Your task to perform on an android device: turn on data saver in the chrome app Image 0: 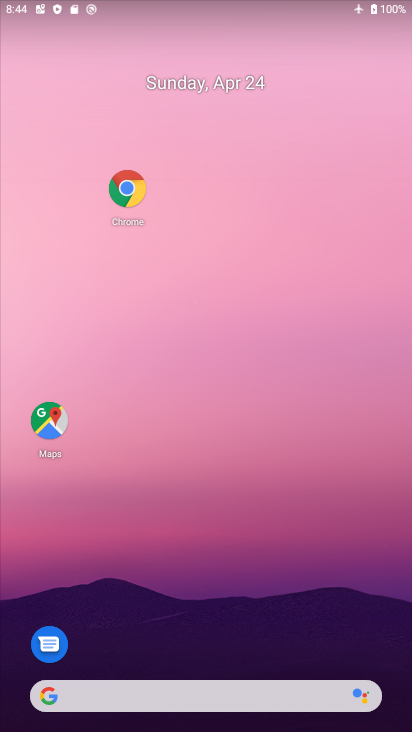
Step 0: drag from (222, 587) to (335, 235)
Your task to perform on an android device: turn on data saver in the chrome app Image 1: 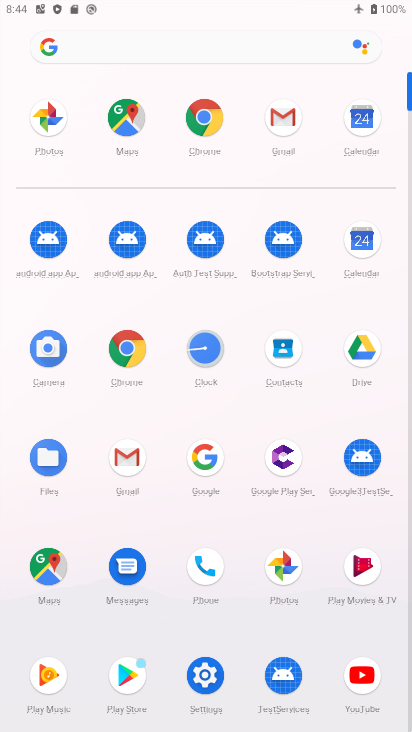
Step 1: click (125, 350)
Your task to perform on an android device: turn on data saver in the chrome app Image 2: 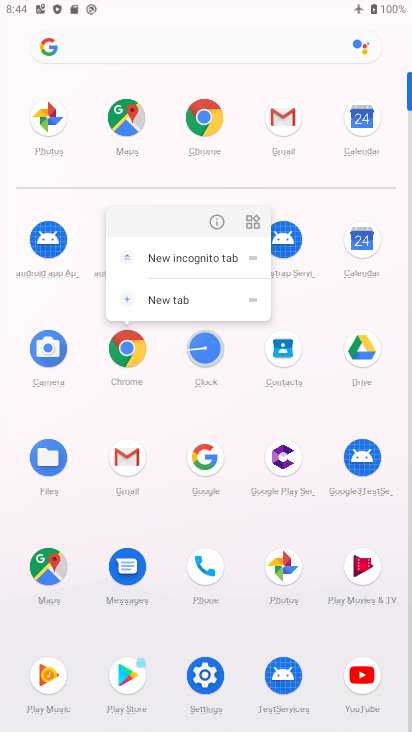
Step 2: click (214, 222)
Your task to perform on an android device: turn on data saver in the chrome app Image 3: 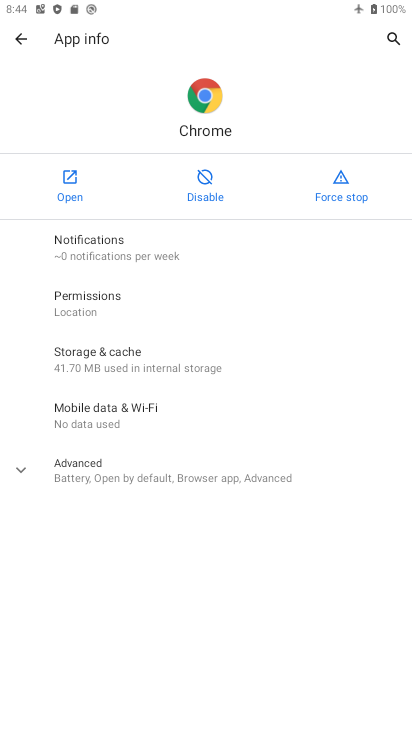
Step 3: click (80, 194)
Your task to perform on an android device: turn on data saver in the chrome app Image 4: 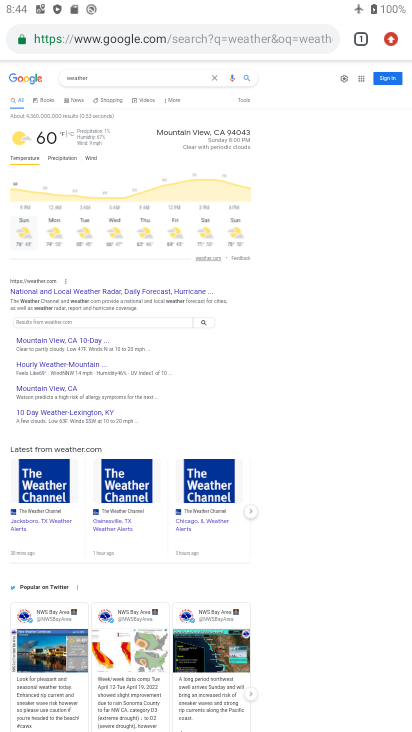
Step 4: drag from (388, 31) to (287, 474)
Your task to perform on an android device: turn on data saver in the chrome app Image 5: 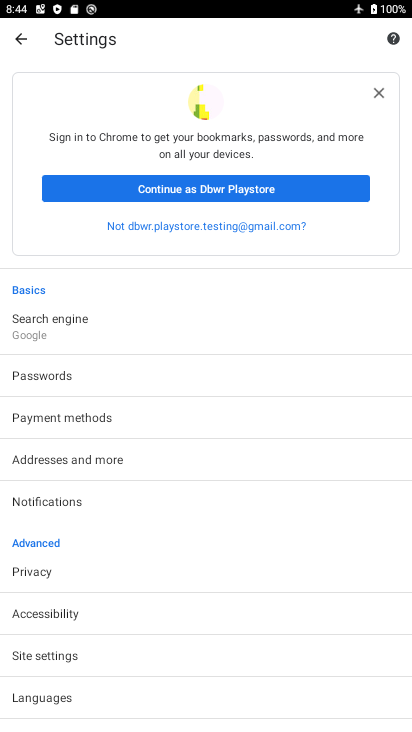
Step 5: drag from (198, 588) to (256, 168)
Your task to perform on an android device: turn on data saver in the chrome app Image 6: 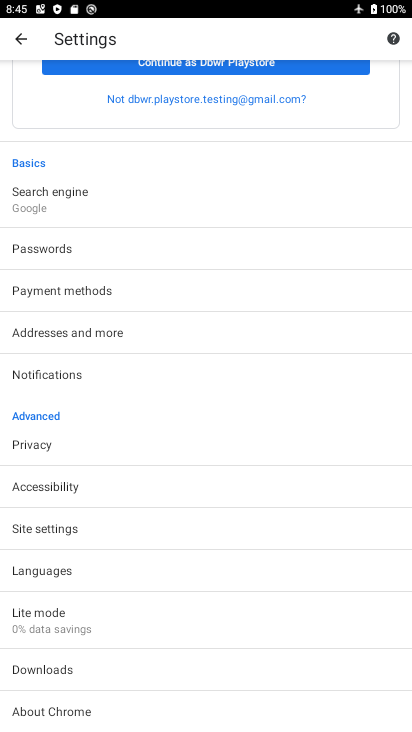
Step 6: click (101, 617)
Your task to perform on an android device: turn on data saver in the chrome app Image 7: 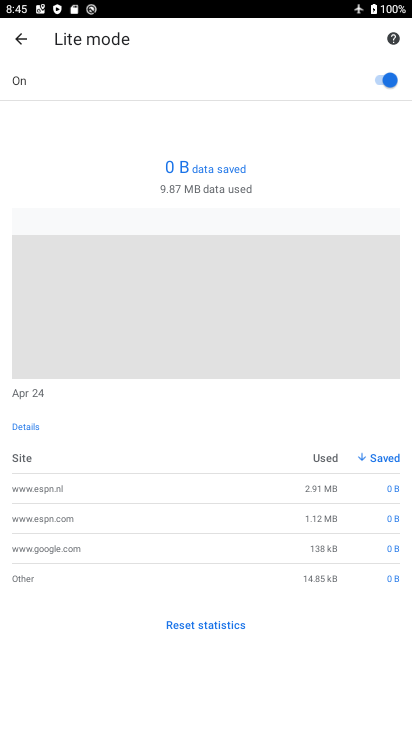
Step 7: task complete